Your task to perform on an android device: Open Google Image 0: 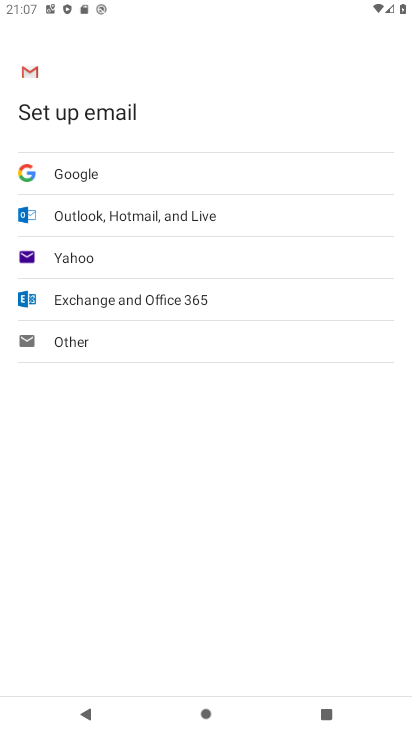
Step 0: press home button
Your task to perform on an android device: Open Google Image 1: 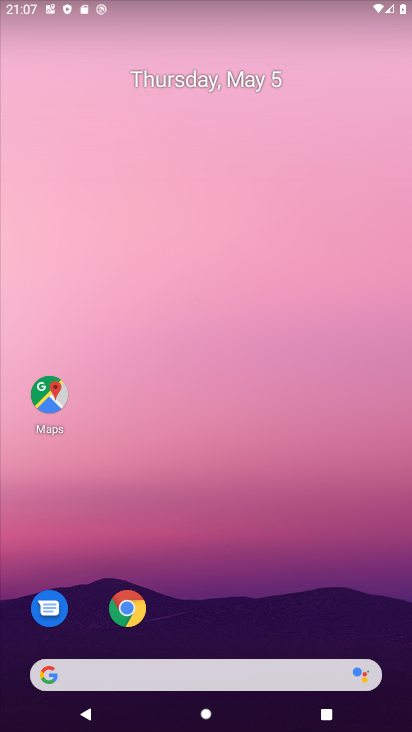
Step 1: drag from (201, 643) to (237, 13)
Your task to perform on an android device: Open Google Image 2: 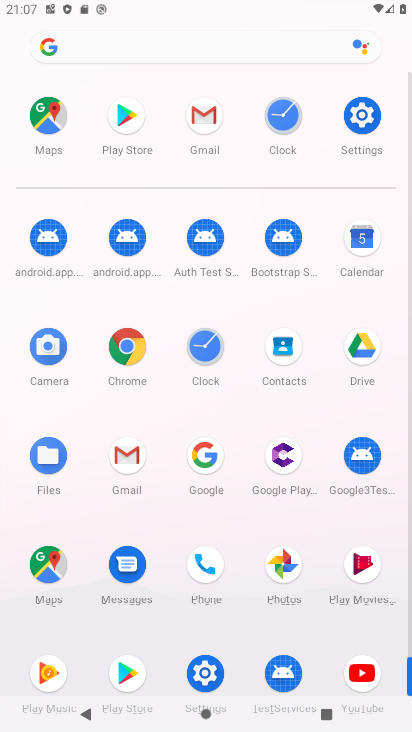
Step 2: click (130, 347)
Your task to perform on an android device: Open Google Image 3: 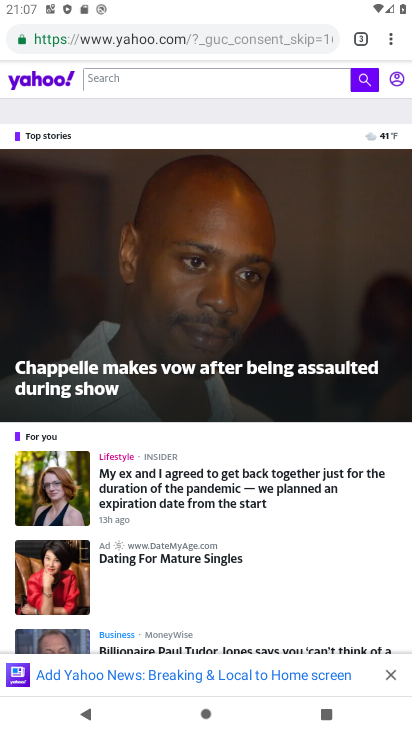
Step 3: click (393, 39)
Your task to perform on an android device: Open Google Image 4: 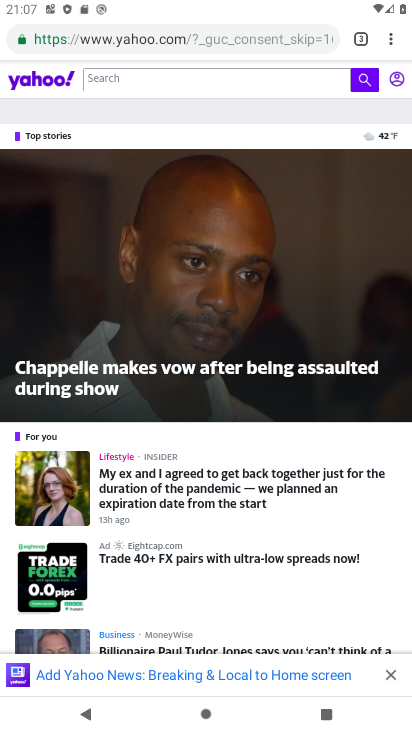
Step 4: task complete